Your task to perform on an android device: delete location history Image 0: 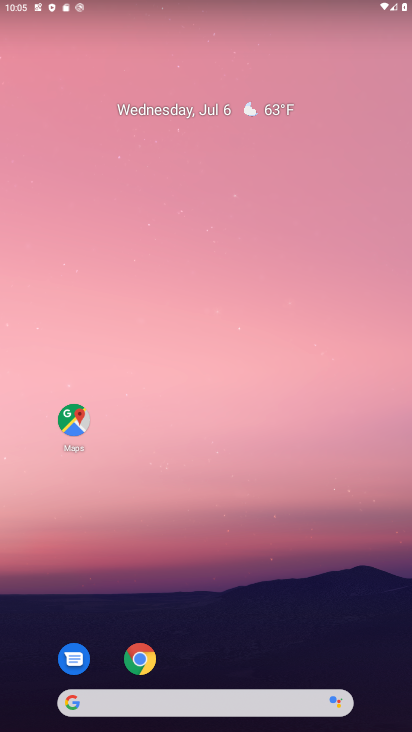
Step 0: drag from (271, 664) to (381, 3)
Your task to perform on an android device: delete location history Image 1: 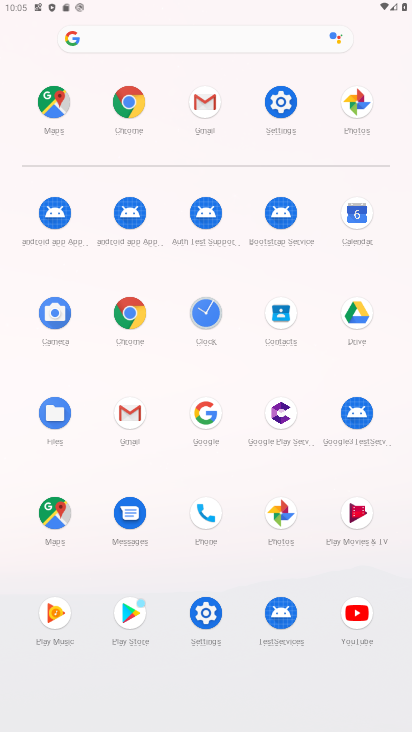
Step 1: click (287, 103)
Your task to perform on an android device: delete location history Image 2: 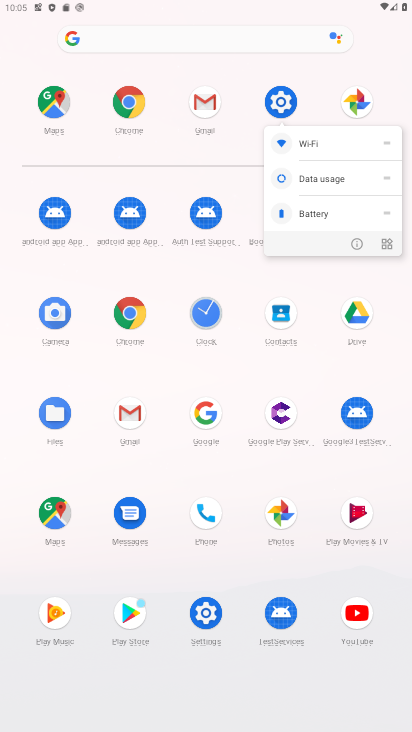
Step 2: click (359, 237)
Your task to perform on an android device: delete location history Image 3: 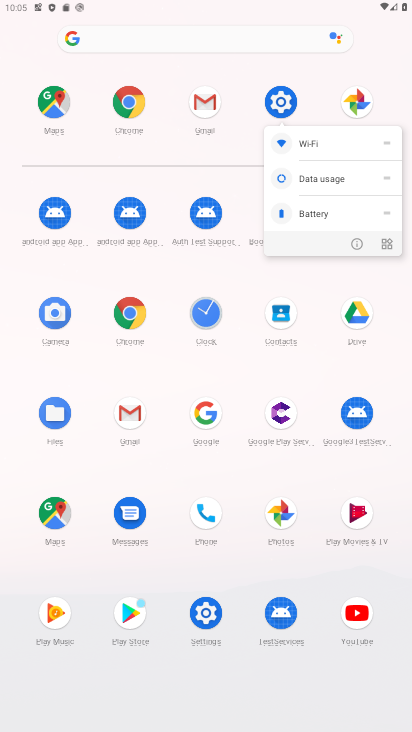
Step 3: click (359, 237)
Your task to perform on an android device: delete location history Image 4: 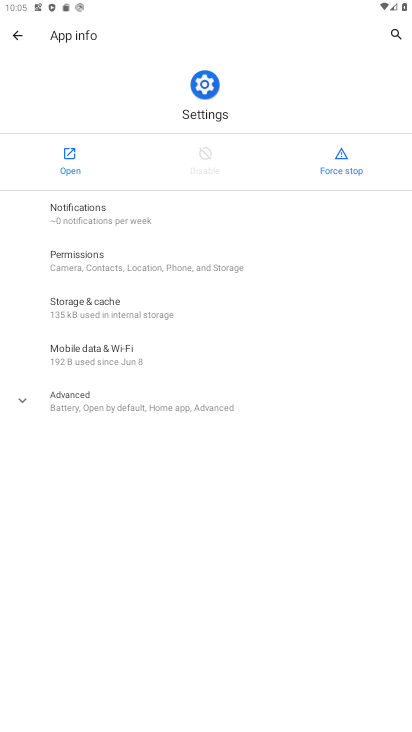
Step 4: click (71, 168)
Your task to perform on an android device: delete location history Image 5: 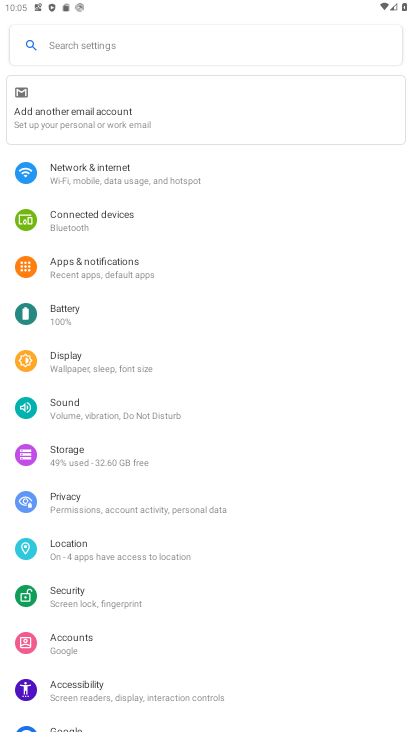
Step 5: drag from (225, 608) to (244, 232)
Your task to perform on an android device: delete location history Image 6: 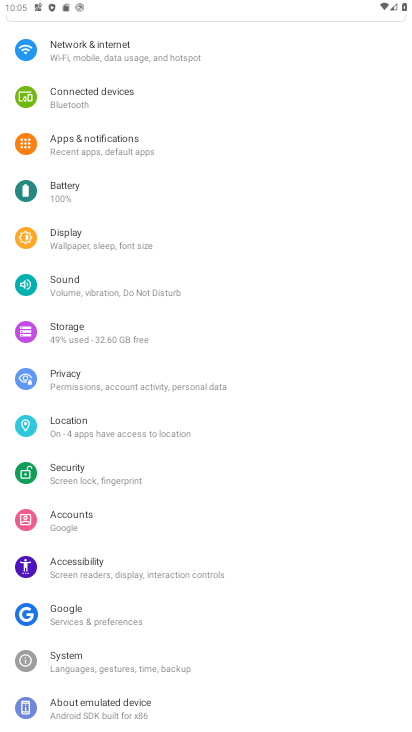
Step 6: click (99, 419)
Your task to perform on an android device: delete location history Image 7: 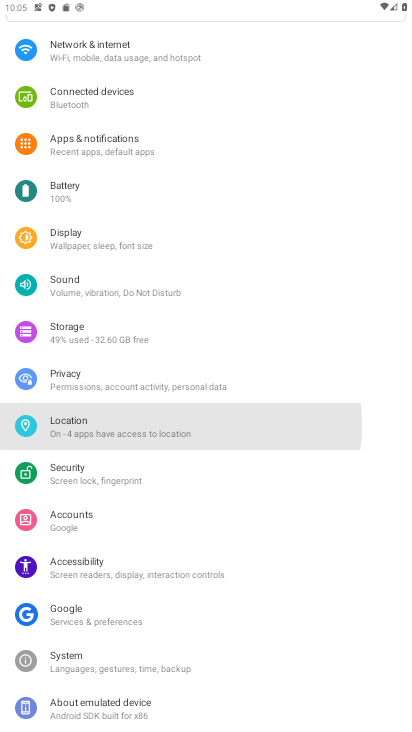
Step 7: click (99, 419)
Your task to perform on an android device: delete location history Image 8: 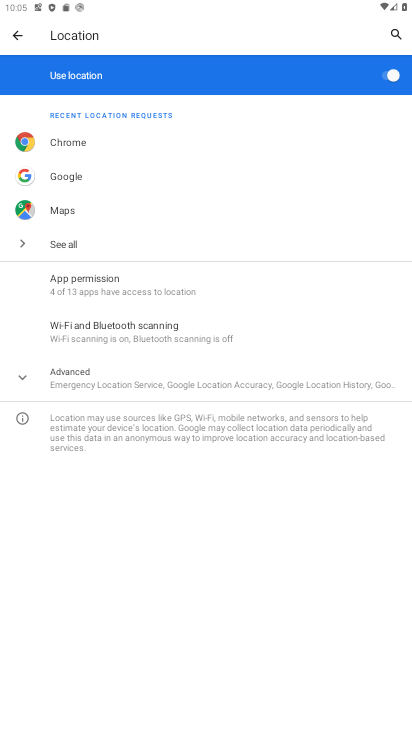
Step 8: click (91, 377)
Your task to perform on an android device: delete location history Image 9: 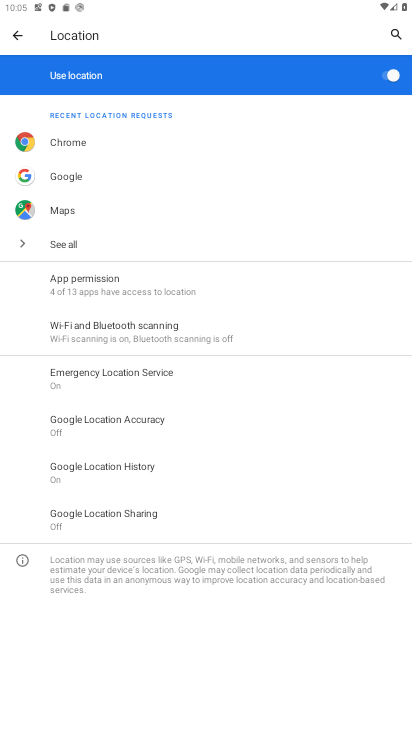
Step 9: click (76, 476)
Your task to perform on an android device: delete location history Image 10: 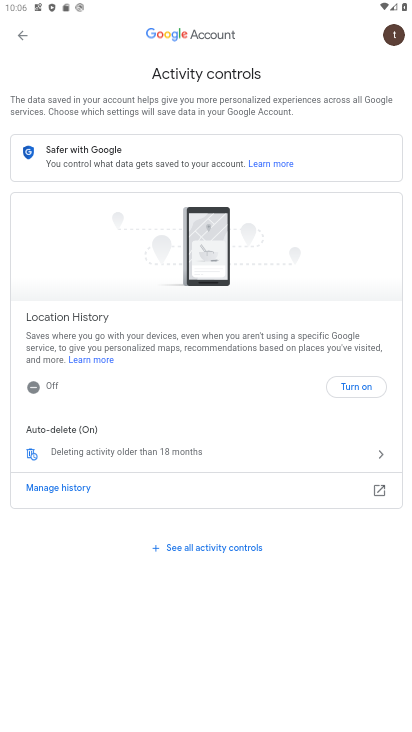
Step 10: click (360, 380)
Your task to perform on an android device: delete location history Image 11: 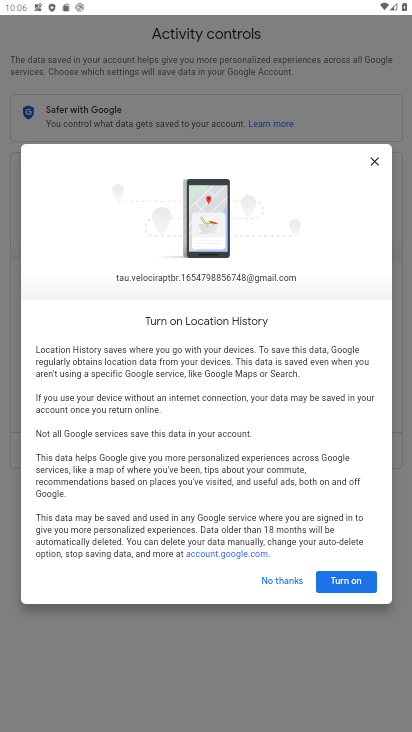
Step 11: click (329, 581)
Your task to perform on an android device: delete location history Image 12: 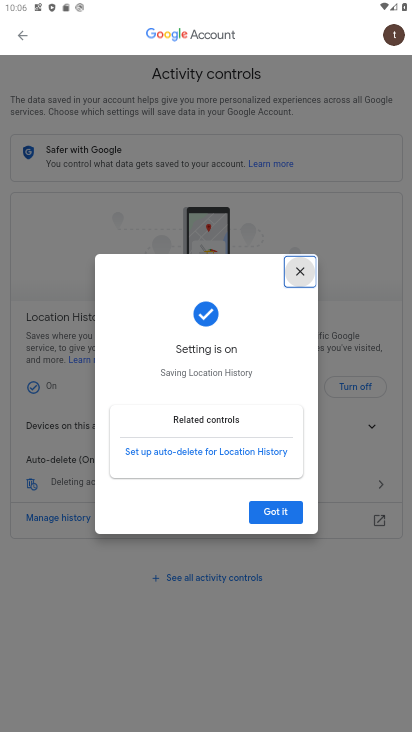
Step 12: click (279, 506)
Your task to perform on an android device: delete location history Image 13: 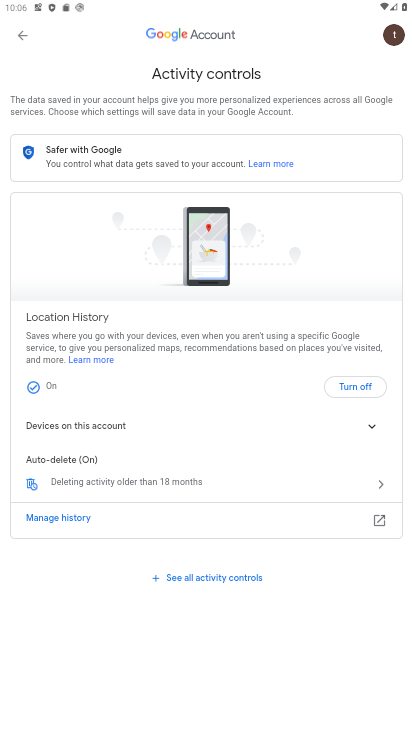
Step 13: task complete